Your task to perform on an android device: Show me popular games on the Play Store Image 0: 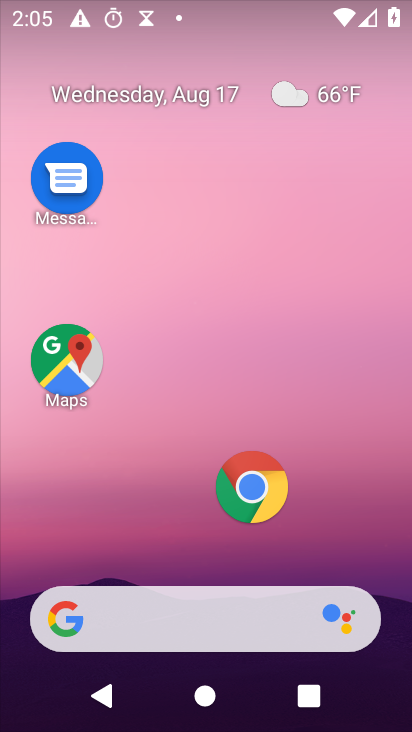
Step 0: press home button
Your task to perform on an android device: Show me popular games on the Play Store Image 1: 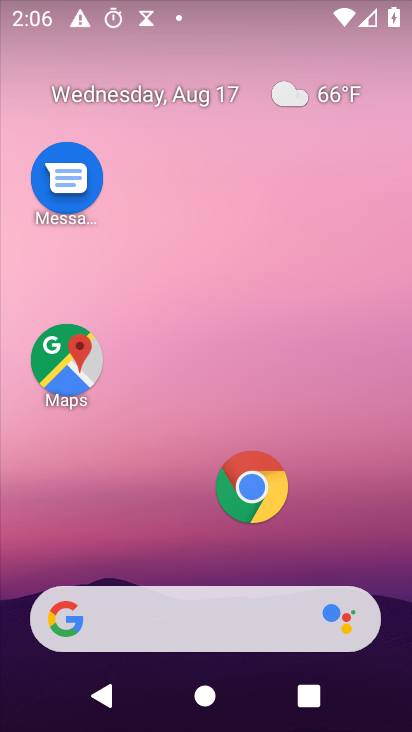
Step 1: drag from (186, 574) to (219, 54)
Your task to perform on an android device: Show me popular games on the Play Store Image 2: 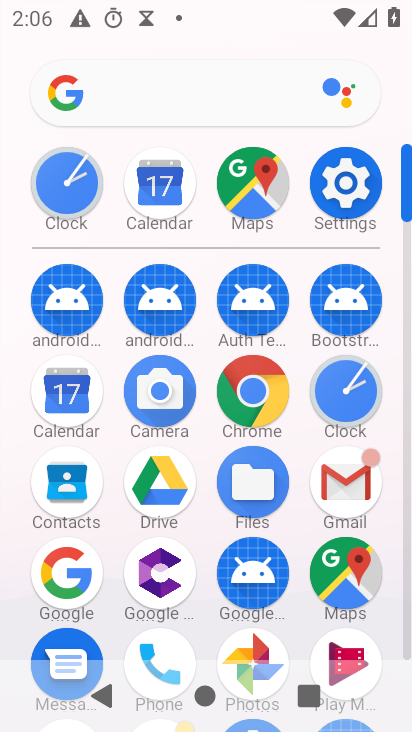
Step 2: drag from (299, 567) to (273, 103)
Your task to perform on an android device: Show me popular games on the Play Store Image 3: 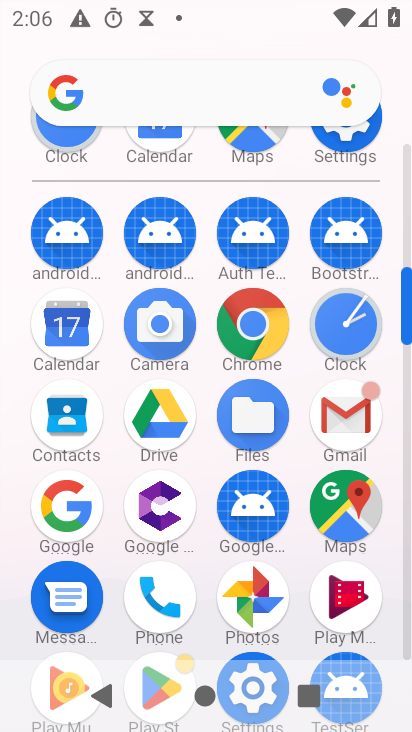
Step 3: drag from (304, 345) to (285, 56)
Your task to perform on an android device: Show me popular games on the Play Store Image 4: 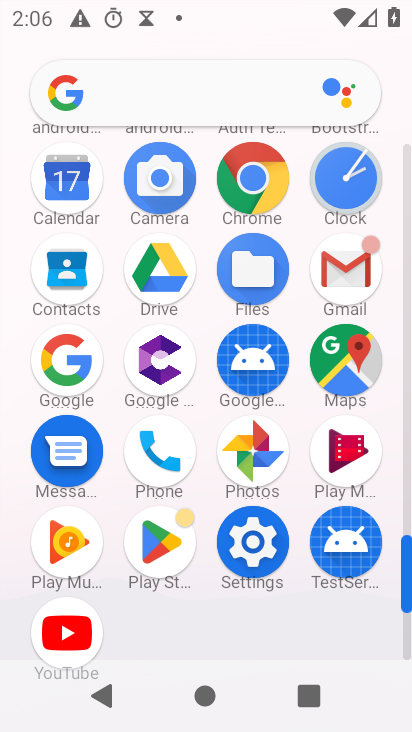
Step 4: click (147, 545)
Your task to perform on an android device: Show me popular games on the Play Store Image 5: 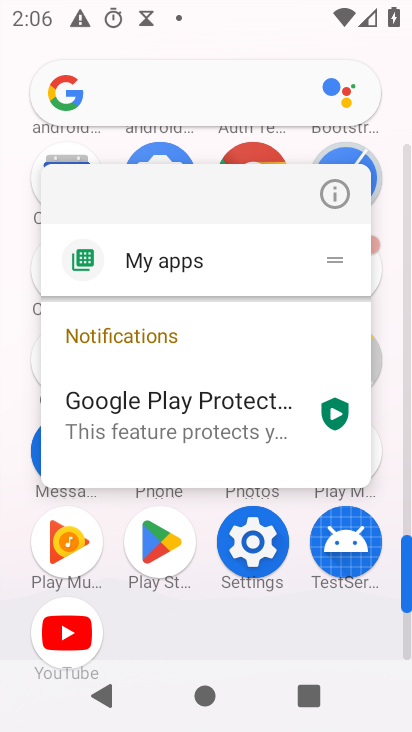
Step 5: click (148, 542)
Your task to perform on an android device: Show me popular games on the Play Store Image 6: 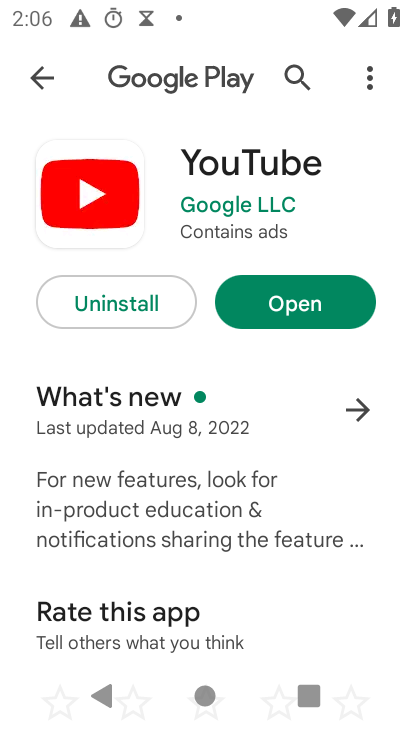
Step 6: press back button
Your task to perform on an android device: Show me popular games on the Play Store Image 7: 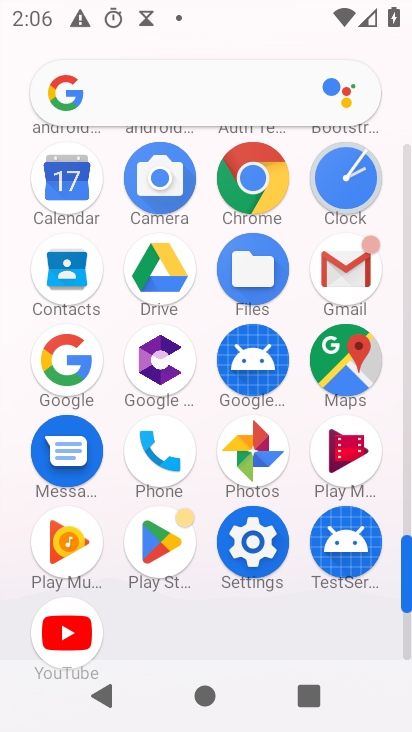
Step 7: click (163, 560)
Your task to perform on an android device: Show me popular games on the Play Store Image 8: 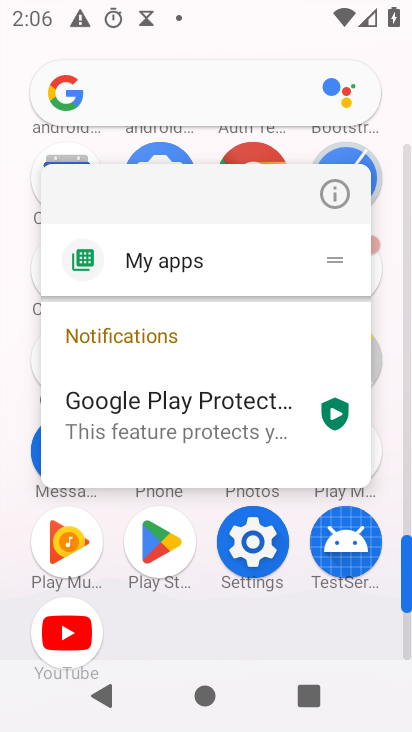
Step 8: click (163, 560)
Your task to perform on an android device: Show me popular games on the Play Store Image 9: 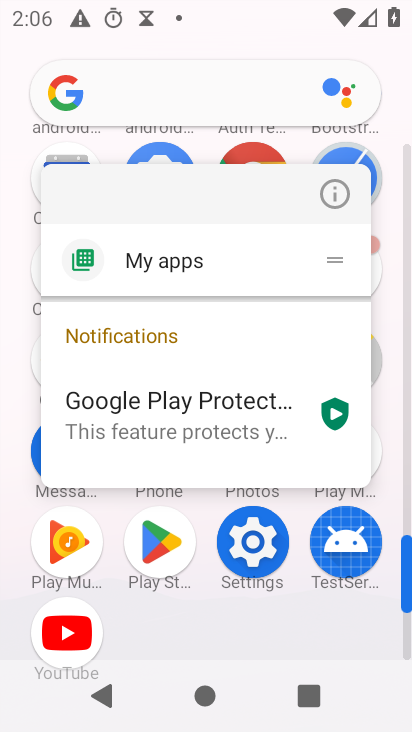
Step 9: click (163, 560)
Your task to perform on an android device: Show me popular games on the Play Store Image 10: 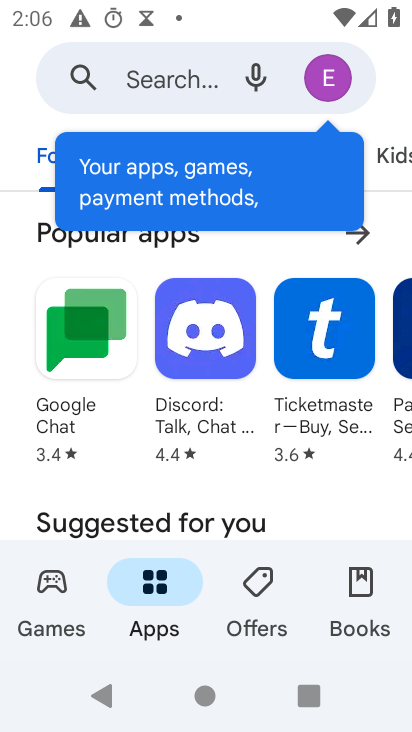
Step 10: click (48, 593)
Your task to perform on an android device: Show me popular games on the Play Store Image 11: 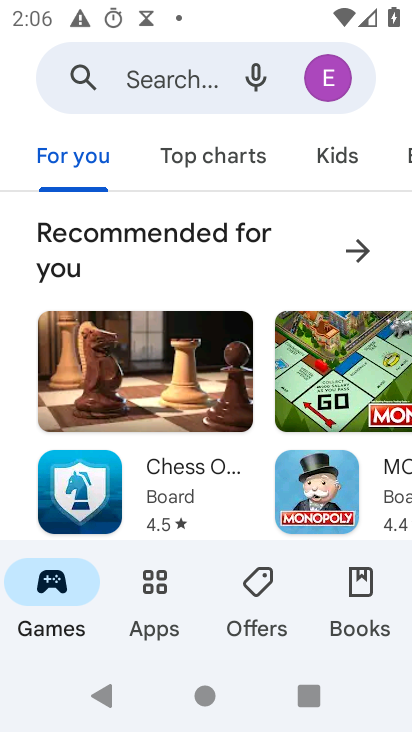
Step 11: drag from (355, 156) to (6, 200)
Your task to perform on an android device: Show me popular games on the Play Store Image 12: 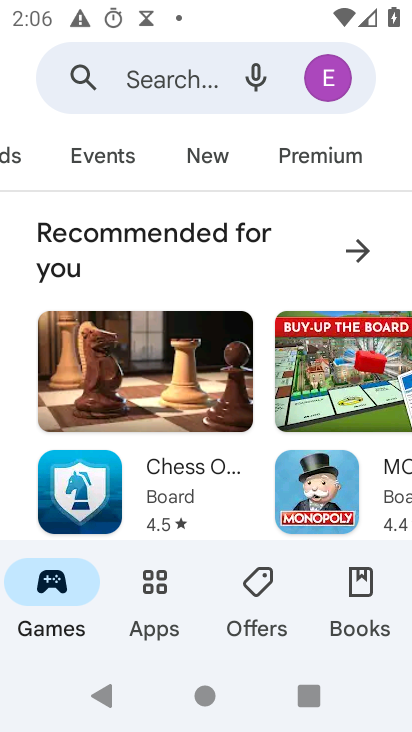
Step 12: drag from (396, 160) to (125, 152)
Your task to perform on an android device: Show me popular games on the Play Store Image 13: 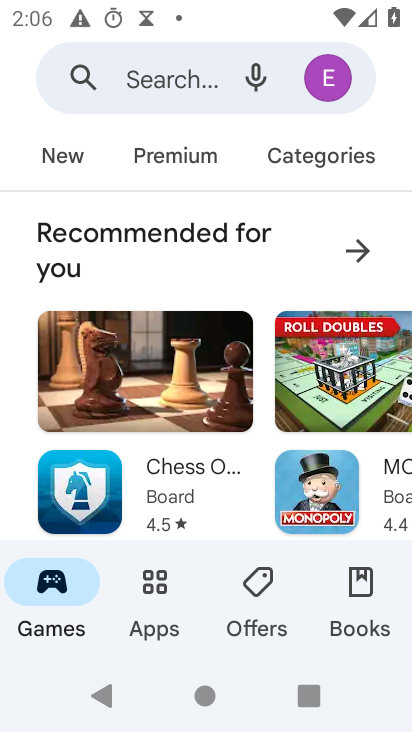
Step 13: click (336, 160)
Your task to perform on an android device: Show me popular games on the Play Store Image 14: 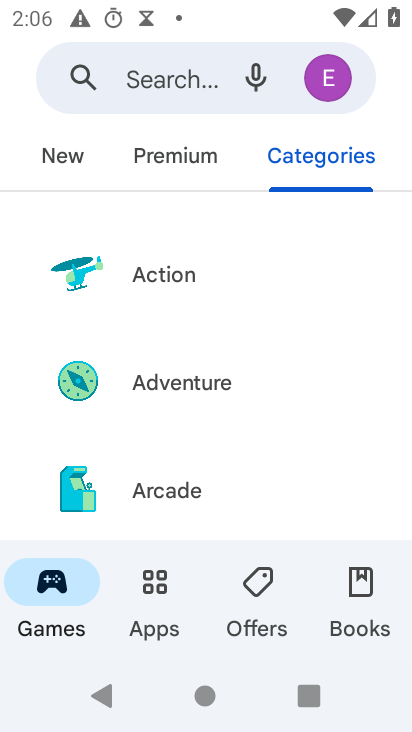
Step 14: task complete